Your task to perform on an android device: turn on data saver in the chrome app Image 0: 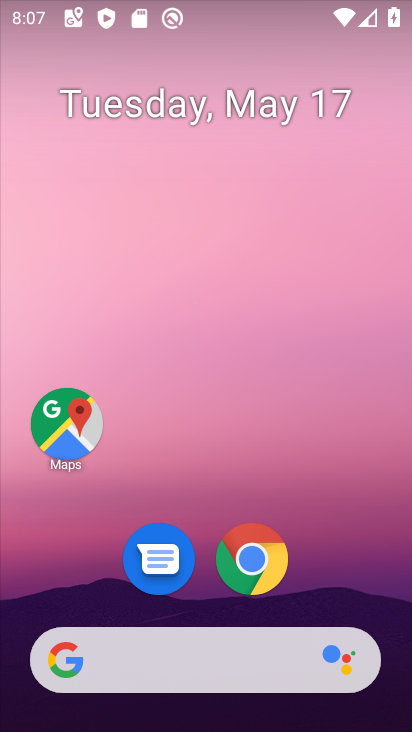
Step 0: click (248, 558)
Your task to perform on an android device: turn on data saver in the chrome app Image 1: 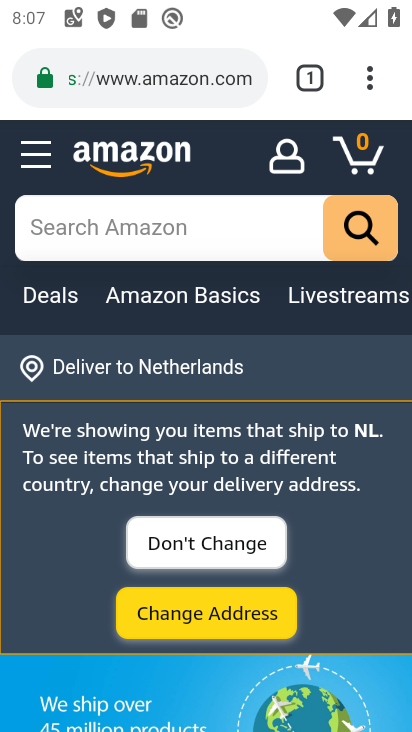
Step 1: click (373, 78)
Your task to perform on an android device: turn on data saver in the chrome app Image 2: 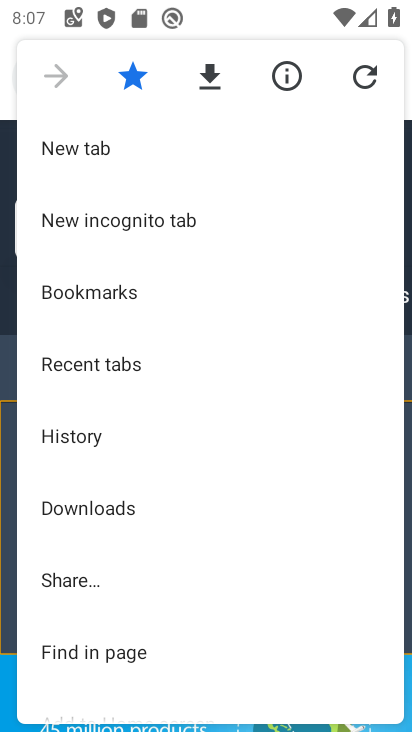
Step 2: drag from (192, 685) to (257, 200)
Your task to perform on an android device: turn on data saver in the chrome app Image 3: 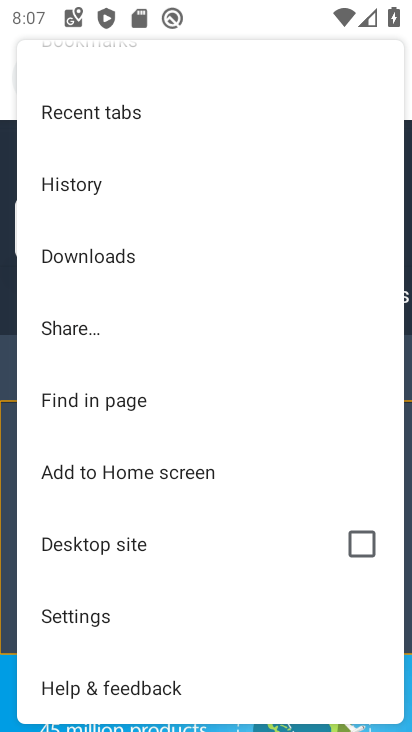
Step 3: click (123, 625)
Your task to perform on an android device: turn on data saver in the chrome app Image 4: 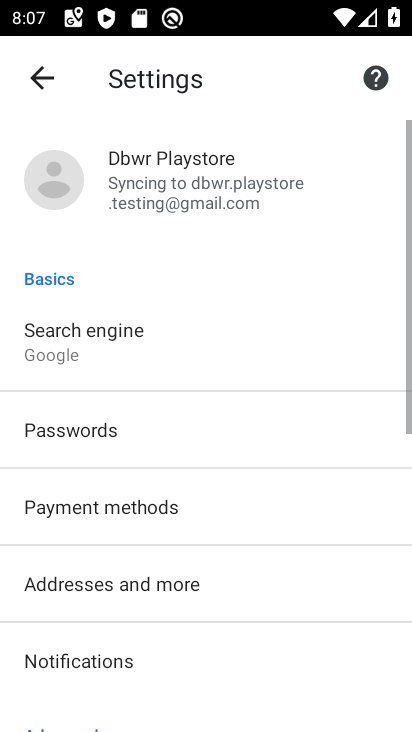
Step 4: drag from (207, 675) to (252, 231)
Your task to perform on an android device: turn on data saver in the chrome app Image 5: 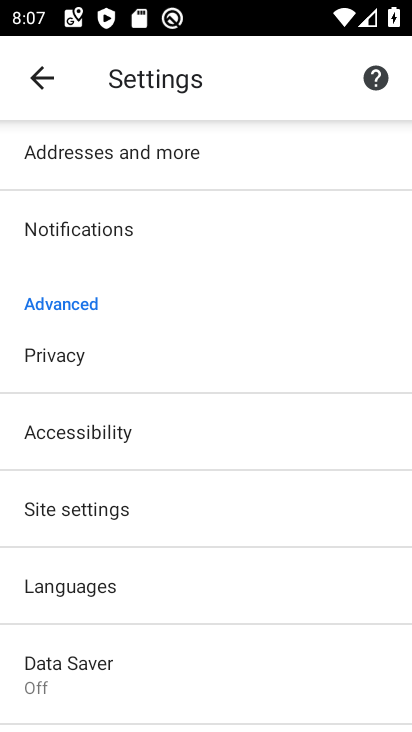
Step 5: click (108, 667)
Your task to perform on an android device: turn on data saver in the chrome app Image 6: 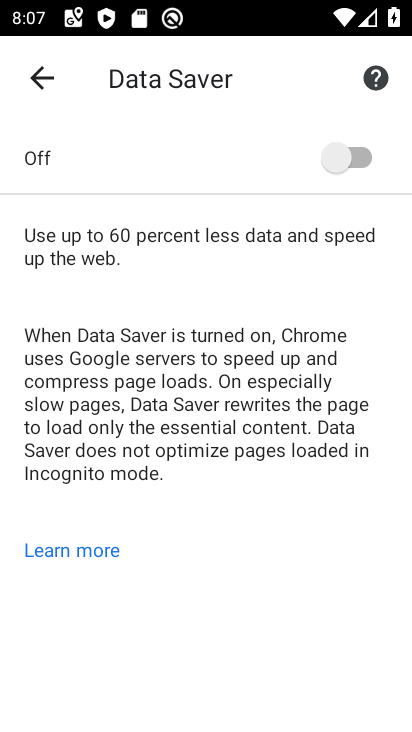
Step 6: click (337, 160)
Your task to perform on an android device: turn on data saver in the chrome app Image 7: 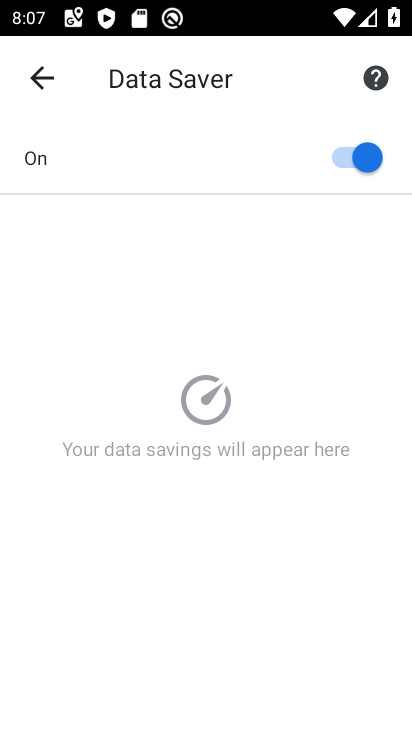
Step 7: task complete